Your task to perform on an android device: change keyboard looks Image 0: 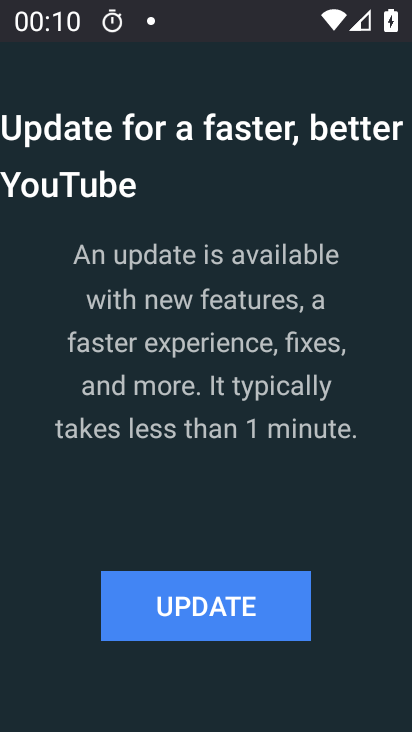
Step 0: press home button
Your task to perform on an android device: change keyboard looks Image 1: 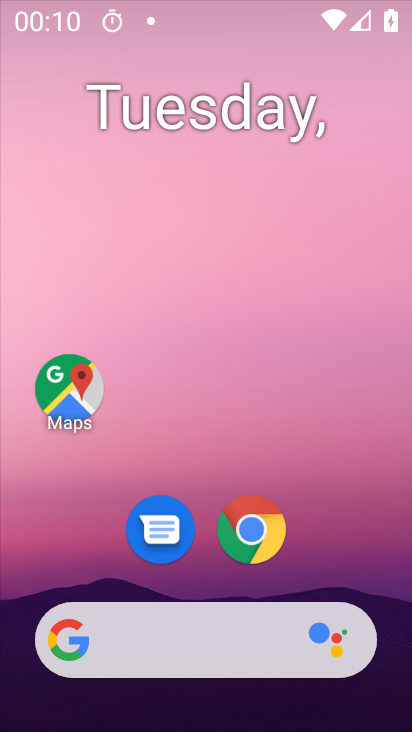
Step 1: drag from (320, 565) to (301, 136)
Your task to perform on an android device: change keyboard looks Image 2: 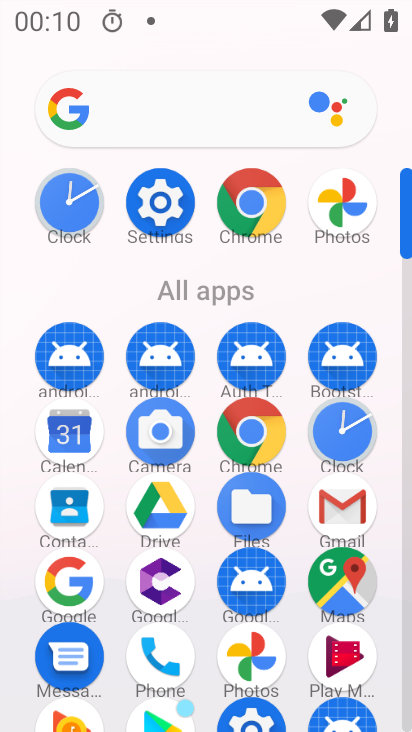
Step 2: click (152, 216)
Your task to perform on an android device: change keyboard looks Image 3: 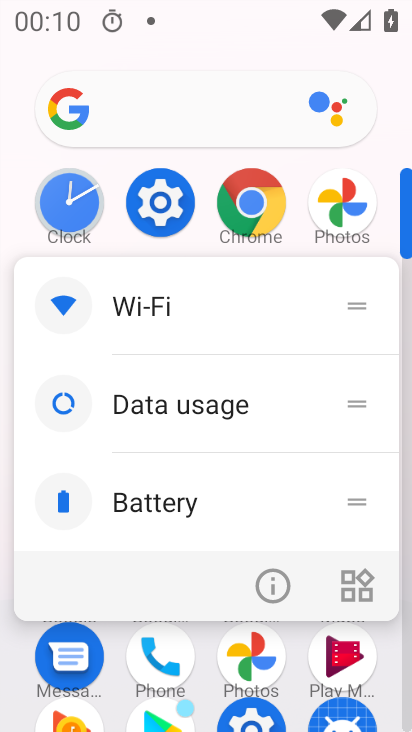
Step 3: click (157, 220)
Your task to perform on an android device: change keyboard looks Image 4: 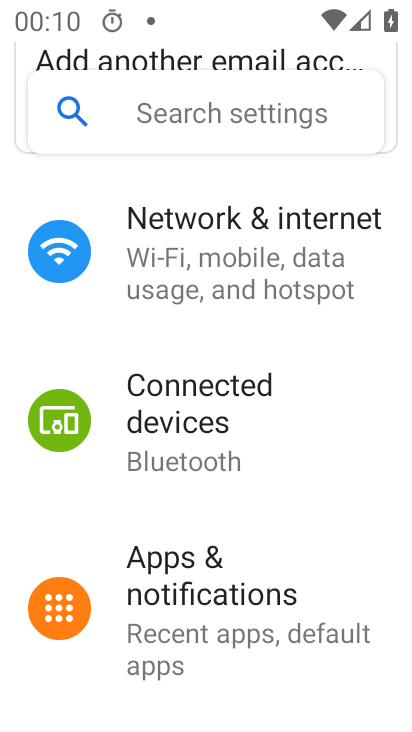
Step 4: drag from (211, 507) to (192, 94)
Your task to perform on an android device: change keyboard looks Image 5: 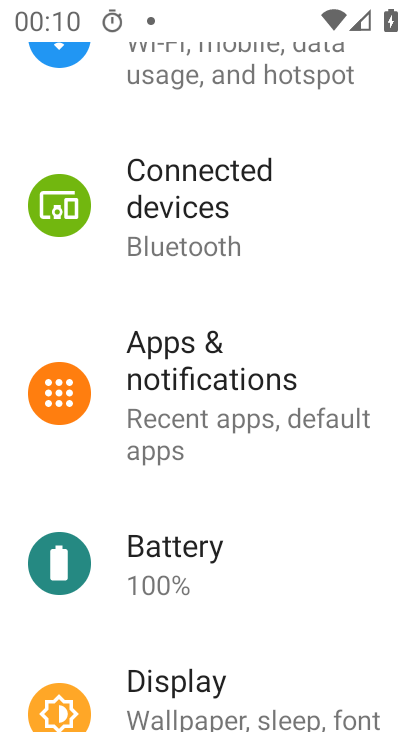
Step 5: drag from (235, 562) to (169, 119)
Your task to perform on an android device: change keyboard looks Image 6: 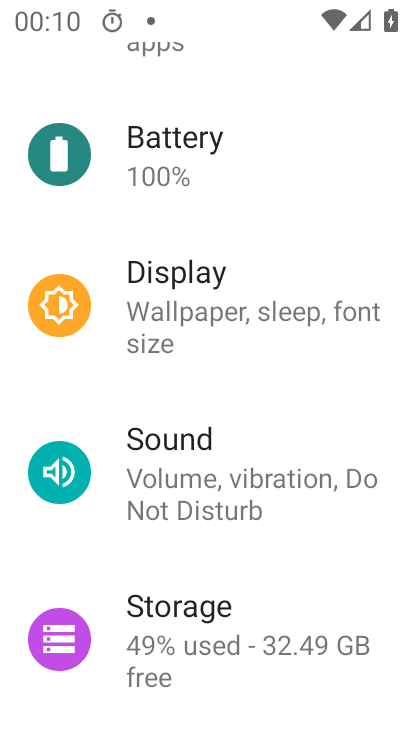
Step 6: drag from (279, 489) to (275, 104)
Your task to perform on an android device: change keyboard looks Image 7: 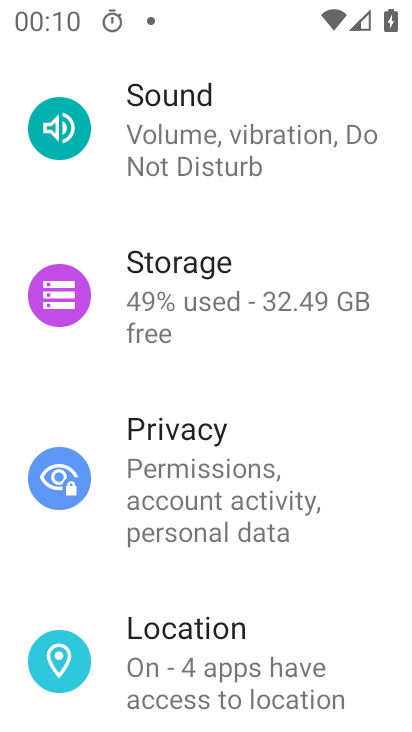
Step 7: drag from (281, 556) to (279, 95)
Your task to perform on an android device: change keyboard looks Image 8: 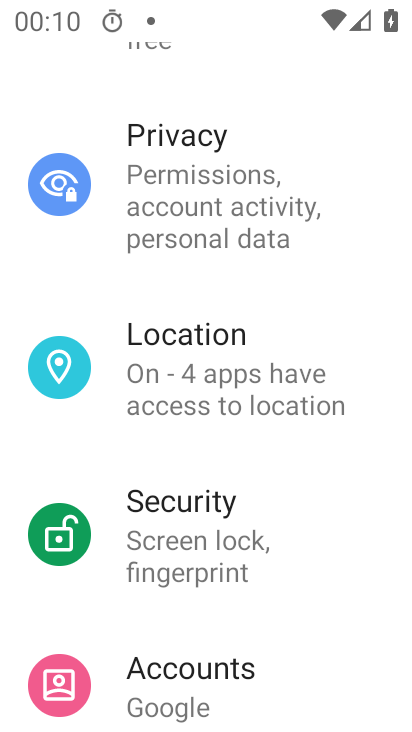
Step 8: drag from (279, 536) to (285, 74)
Your task to perform on an android device: change keyboard looks Image 9: 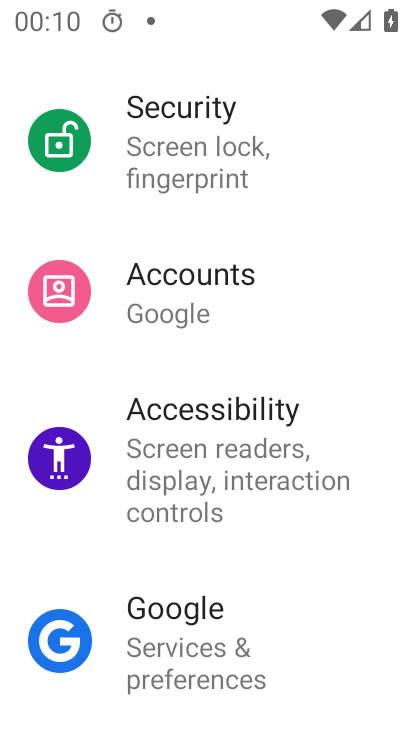
Step 9: drag from (248, 573) to (241, 99)
Your task to perform on an android device: change keyboard looks Image 10: 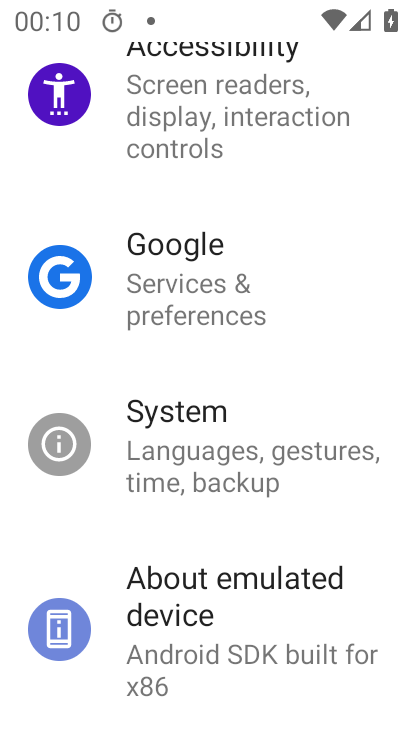
Step 10: drag from (232, 480) to (232, 40)
Your task to perform on an android device: change keyboard looks Image 11: 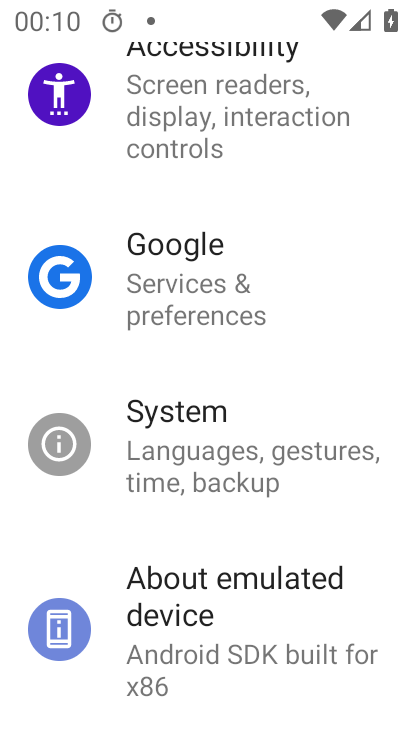
Step 11: click (241, 468)
Your task to perform on an android device: change keyboard looks Image 12: 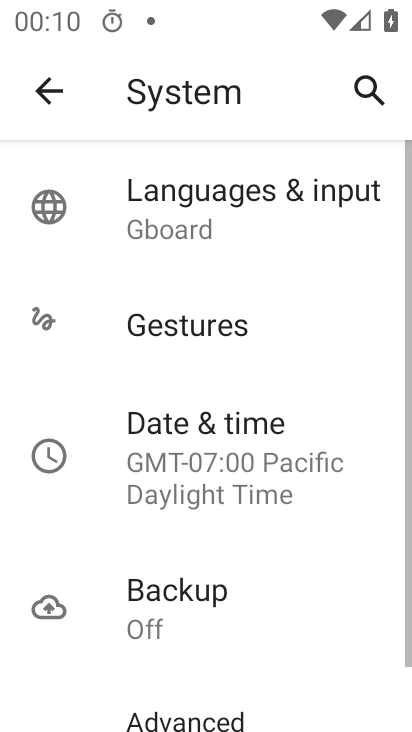
Step 12: click (201, 126)
Your task to perform on an android device: change keyboard looks Image 13: 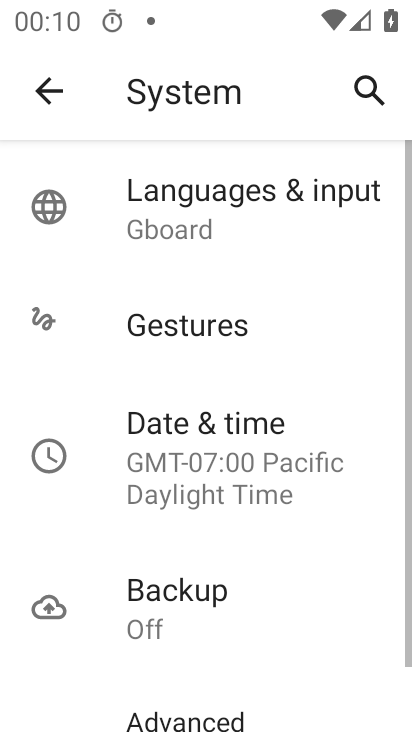
Step 13: click (205, 225)
Your task to perform on an android device: change keyboard looks Image 14: 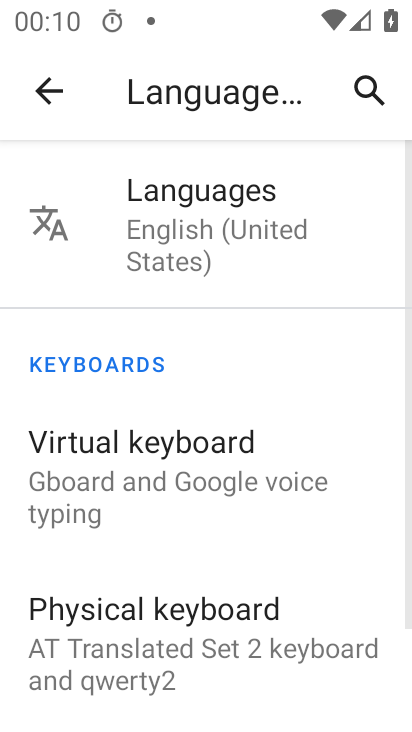
Step 14: click (180, 505)
Your task to perform on an android device: change keyboard looks Image 15: 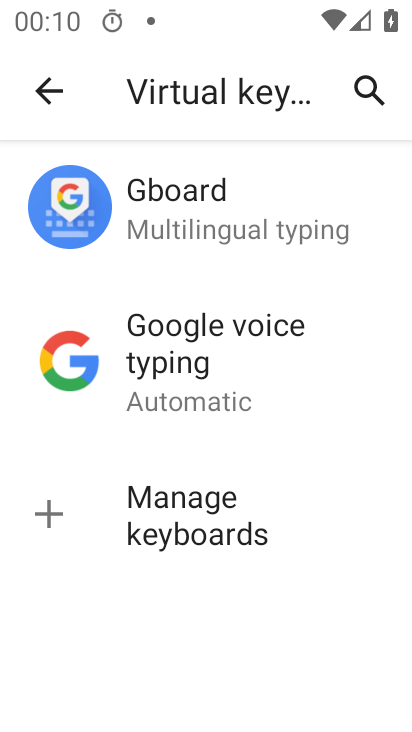
Step 15: click (197, 204)
Your task to perform on an android device: change keyboard looks Image 16: 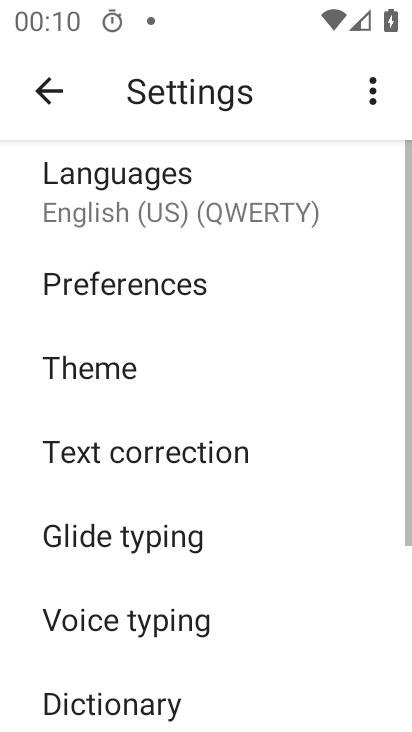
Step 16: click (193, 343)
Your task to perform on an android device: change keyboard looks Image 17: 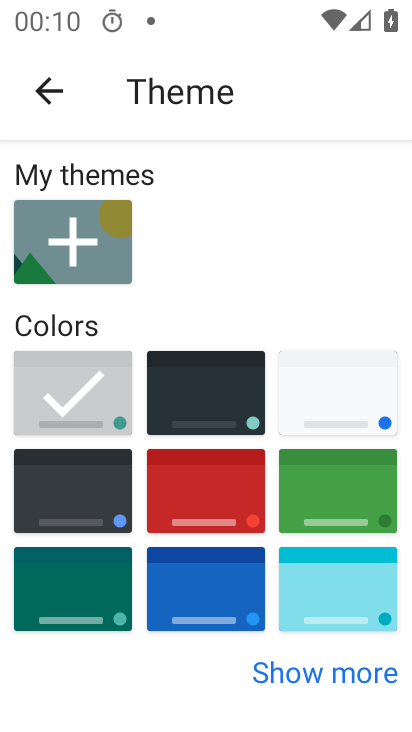
Step 17: click (230, 543)
Your task to perform on an android device: change keyboard looks Image 18: 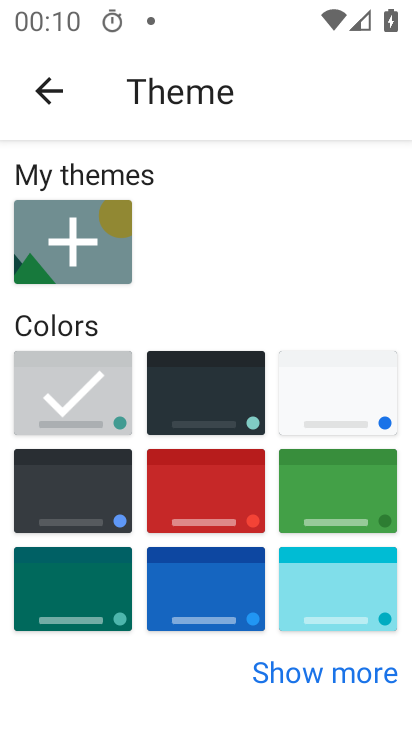
Step 18: click (213, 609)
Your task to perform on an android device: change keyboard looks Image 19: 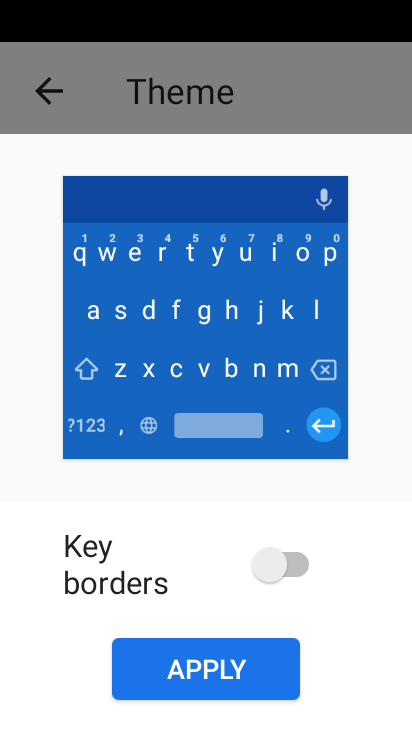
Step 19: click (225, 679)
Your task to perform on an android device: change keyboard looks Image 20: 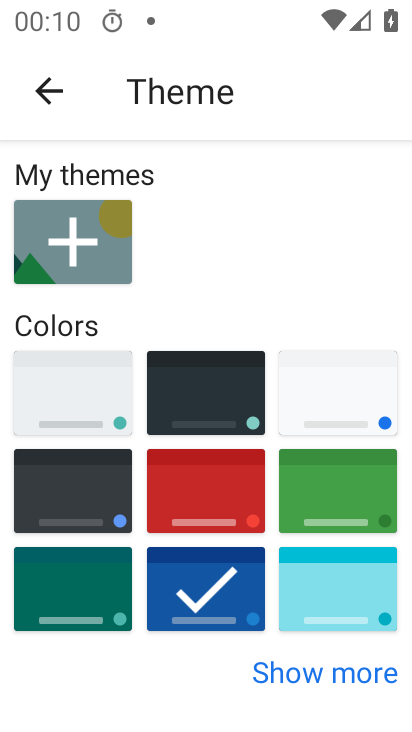
Step 20: task complete